Your task to perform on an android device: open app "Flipkart Online Shopping App" (install if not already installed) and go to login screen Image 0: 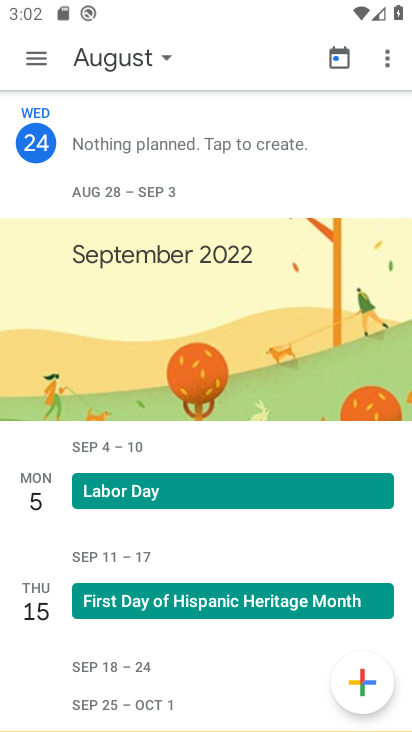
Step 0: press home button
Your task to perform on an android device: open app "Flipkart Online Shopping App" (install if not already installed) and go to login screen Image 1: 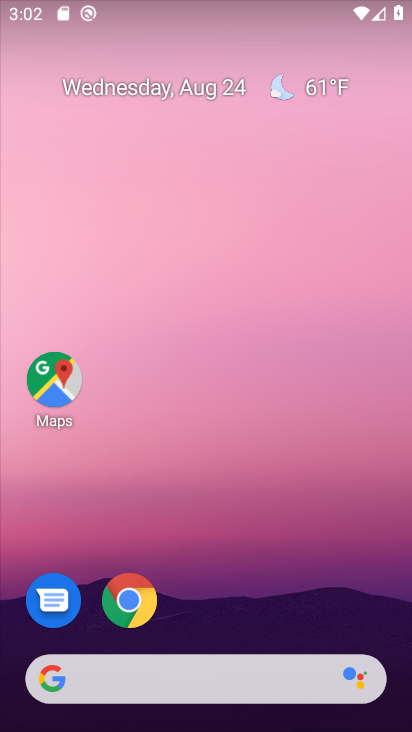
Step 1: drag from (248, 533) to (320, 71)
Your task to perform on an android device: open app "Flipkart Online Shopping App" (install if not already installed) and go to login screen Image 2: 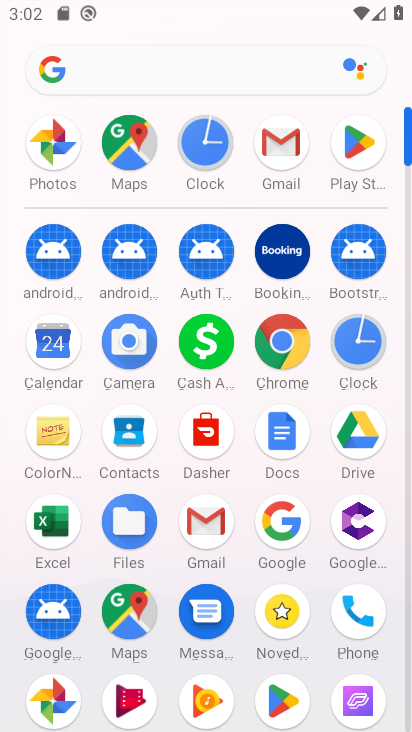
Step 2: click (356, 151)
Your task to perform on an android device: open app "Flipkart Online Shopping App" (install if not already installed) and go to login screen Image 3: 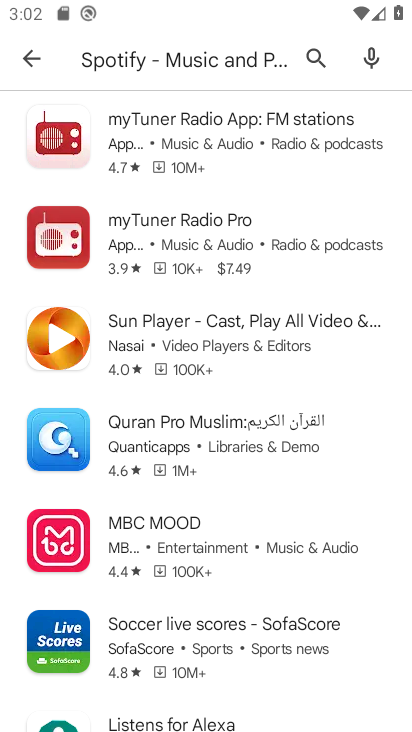
Step 3: click (313, 56)
Your task to perform on an android device: open app "Flipkart Online Shopping App" (install if not already installed) and go to login screen Image 4: 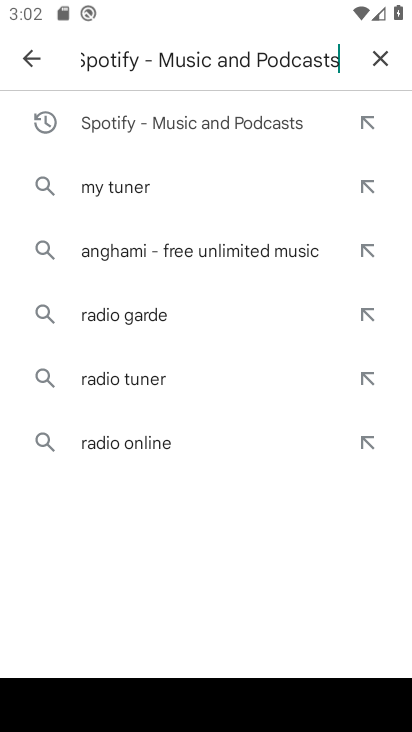
Step 4: click (383, 51)
Your task to perform on an android device: open app "Flipkart Online Shopping App" (install if not already installed) and go to login screen Image 5: 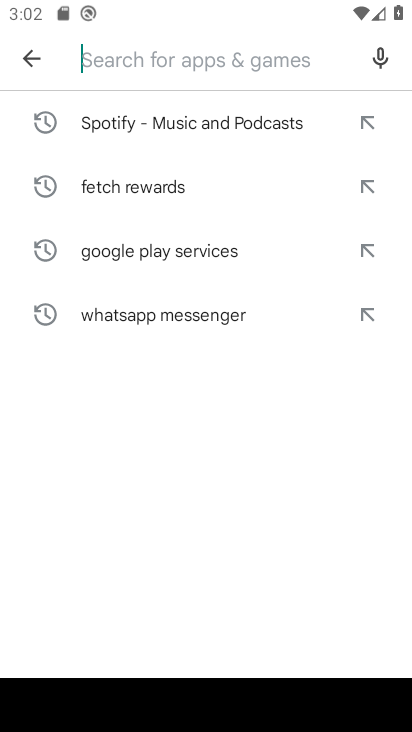
Step 5: click (128, 57)
Your task to perform on an android device: open app "Flipkart Online Shopping App" (install if not already installed) and go to login screen Image 6: 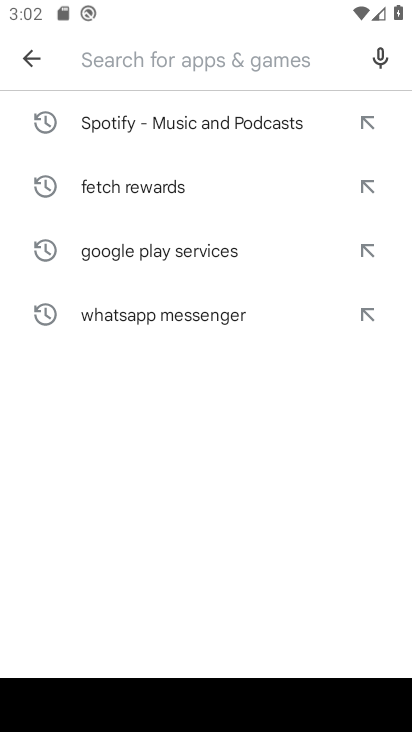
Step 6: type "Flipkart Online Shopping App"
Your task to perform on an android device: open app "Flipkart Online Shopping App" (install if not already installed) and go to login screen Image 7: 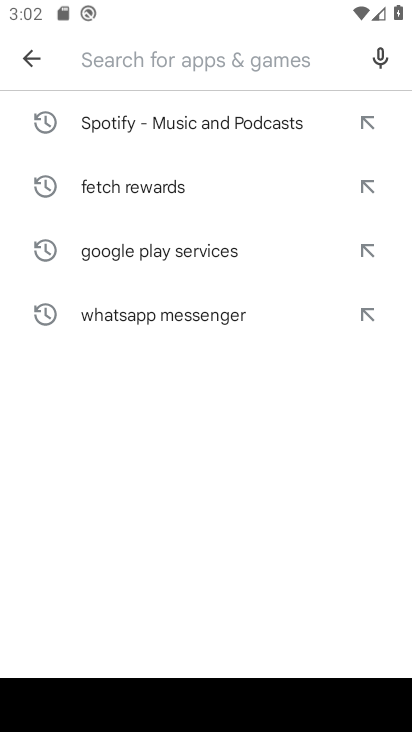
Step 7: click (258, 511)
Your task to perform on an android device: open app "Flipkart Online Shopping App" (install if not already installed) and go to login screen Image 8: 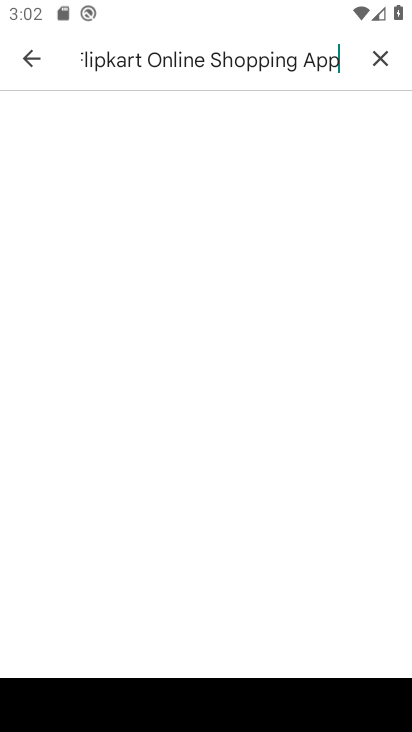
Step 8: task complete